Your task to perform on an android device: show emergency info Image 0: 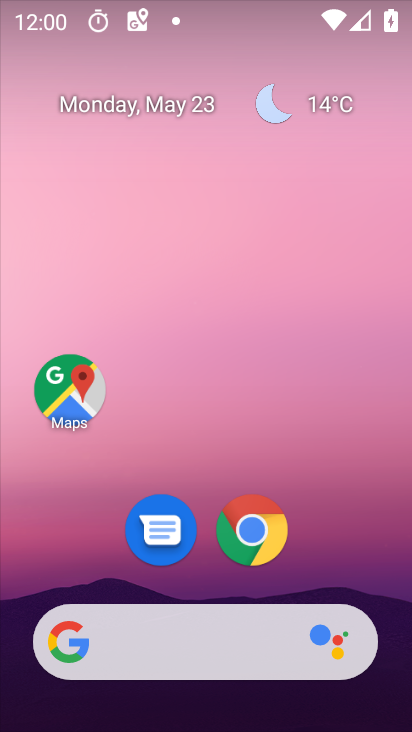
Step 0: drag from (395, 712) to (296, 33)
Your task to perform on an android device: show emergency info Image 1: 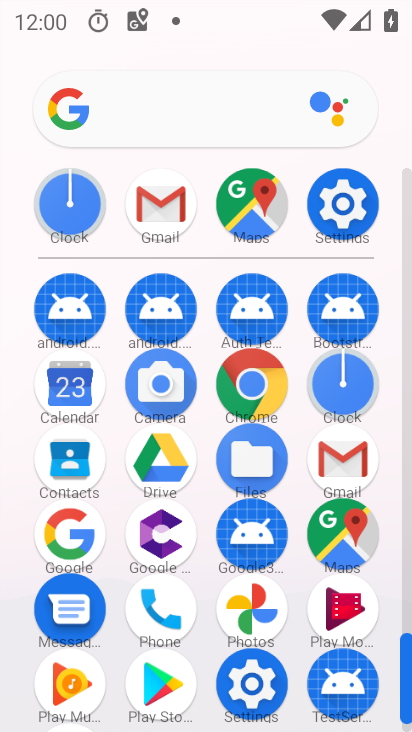
Step 1: click (354, 202)
Your task to perform on an android device: show emergency info Image 2: 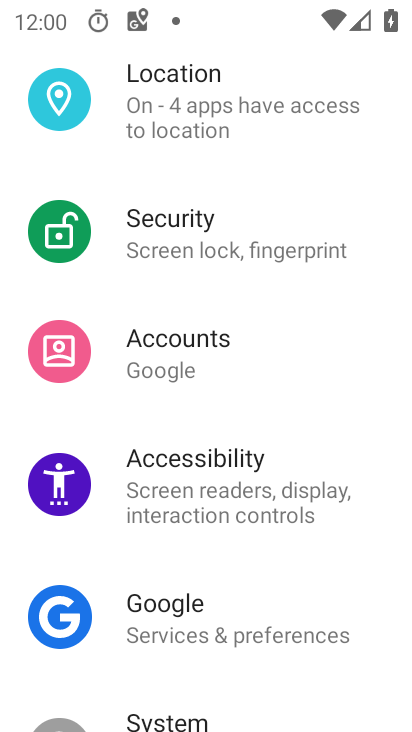
Step 2: drag from (397, 705) to (382, 85)
Your task to perform on an android device: show emergency info Image 3: 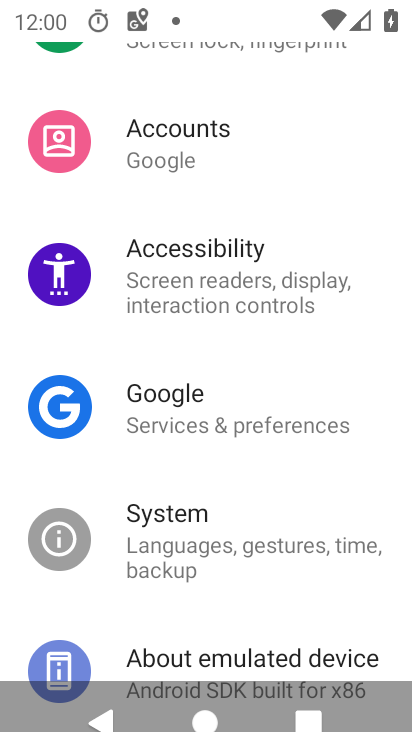
Step 3: drag from (384, 614) to (383, 189)
Your task to perform on an android device: show emergency info Image 4: 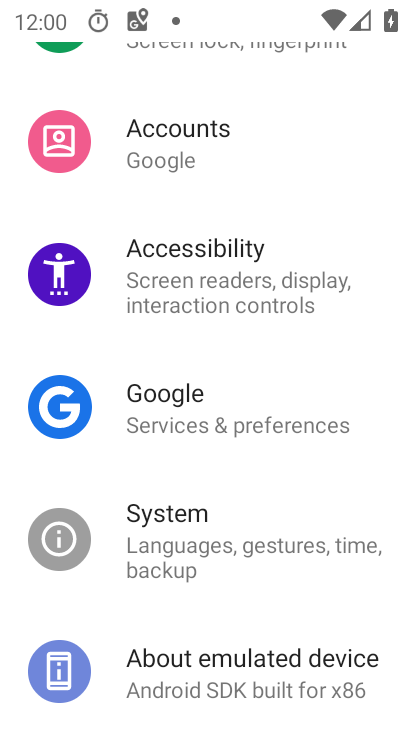
Step 4: click (247, 679)
Your task to perform on an android device: show emergency info Image 5: 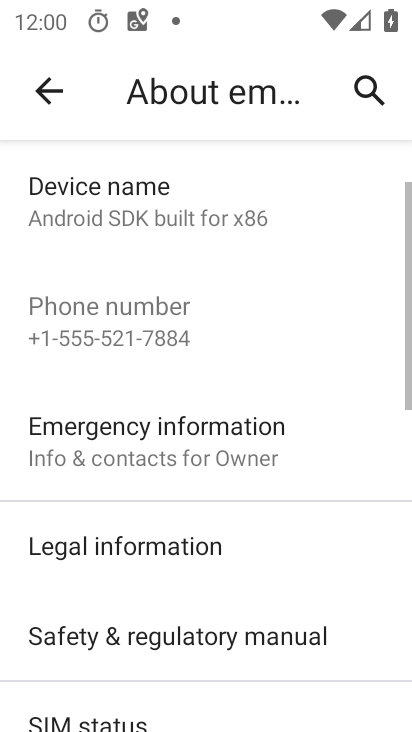
Step 5: drag from (369, 658) to (335, 248)
Your task to perform on an android device: show emergency info Image 6: 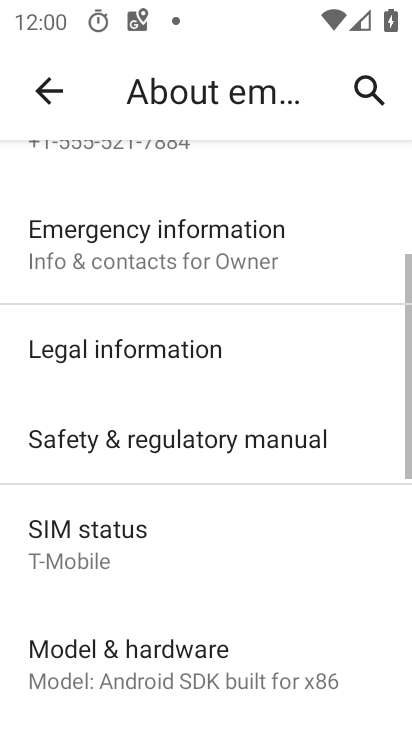
Step 6: click (118, 291)
Your task to perform on an android device: show emergency info Image 7: 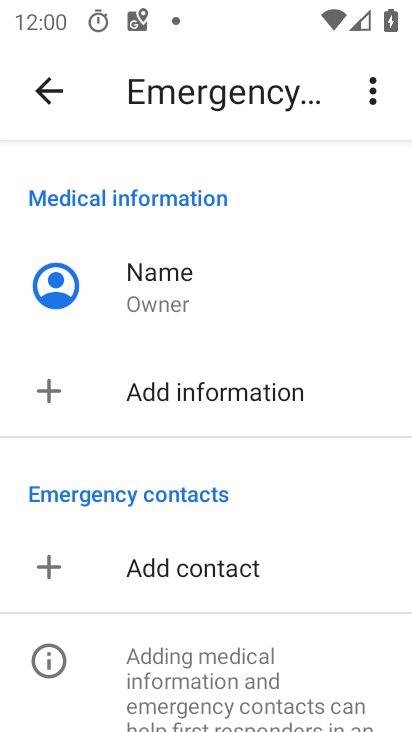
Step 7: task complete